Your task to perform on an android device: Do I have any events this weekend? Image 0: 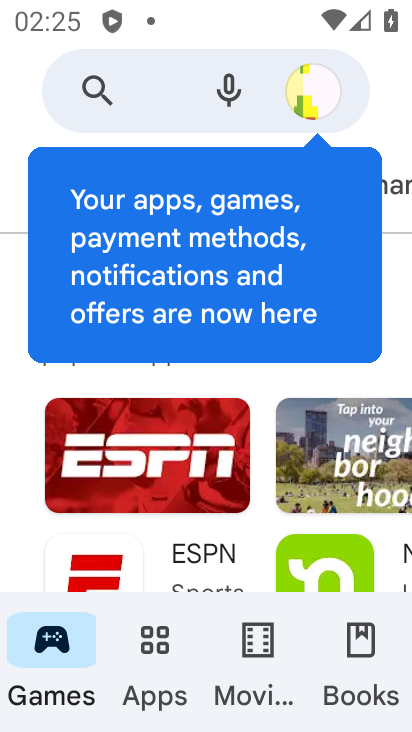
Step 0: press home button
Your task to perform on an android device: Do I have any events this weekend? Image 1: 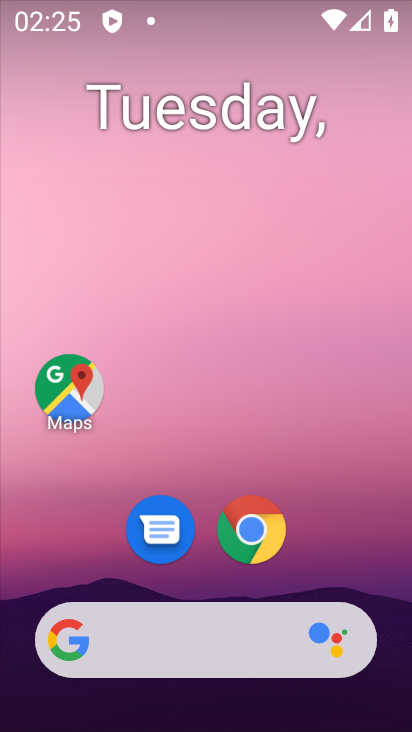
Step 1: drag from (199, 578) to (199, 4)
Your task to perform on an android device: Do I have any events this weekend? Image 2: 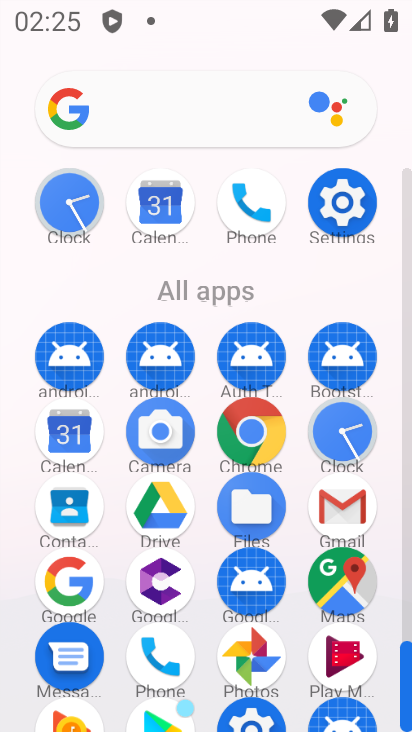
Step 2: click (173, 200)
Your task to perform on an android device: Do I have any events this weekend? Image 3: 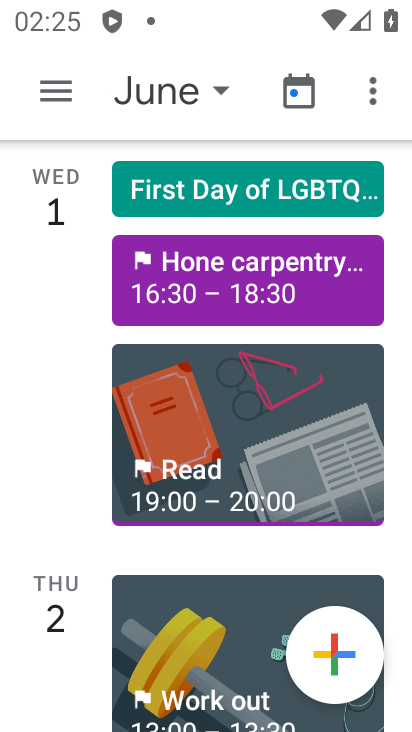
Step 3: click (203, 88)
Your task to perform on an android device: Do I have any events this weekend? Image 4: 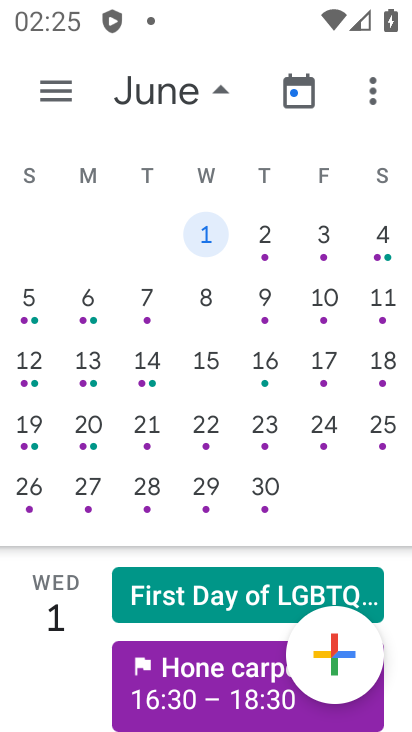
Step 4: click (374, 243)
Your task to perform on an android device: Do I have any events this weekend? Image 5: 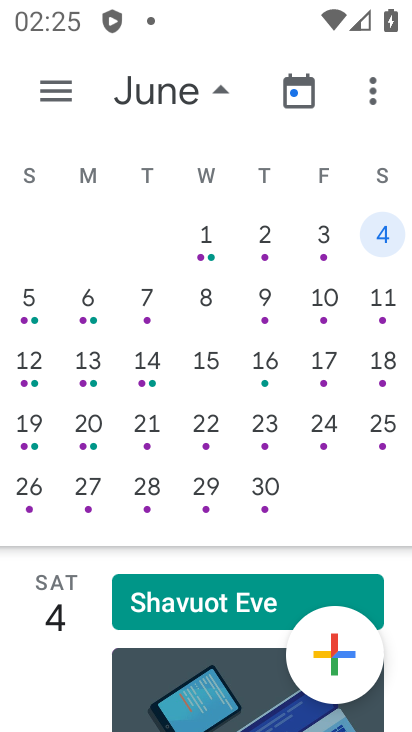
Step 5: task complete